Your task to perform on an android device: Go to Google maps Image 0: 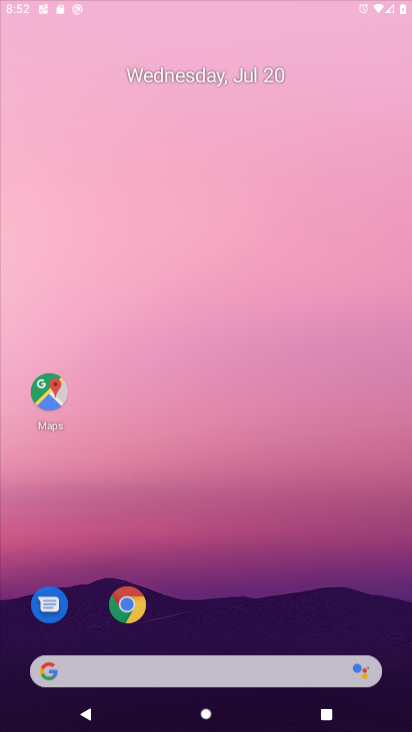
Step 0: drag from (199, 314) to (167, 363)
Your task to perform on an android device: Go to Google maps Image 1: 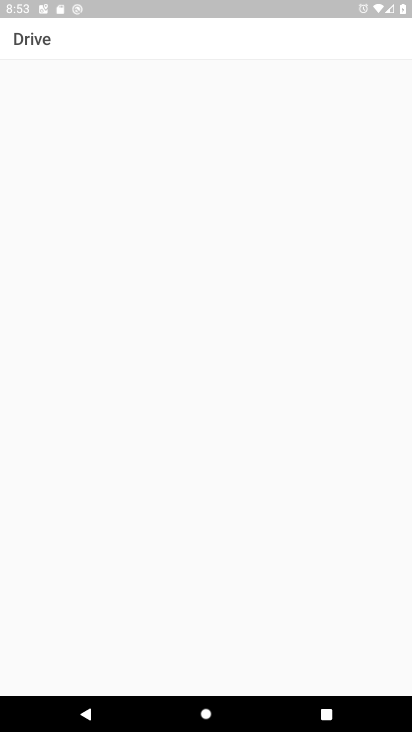
Step 1: drag from (135, 650) to (153, 474)
Your task to perform on an android device: Go to Google maps Image 2: 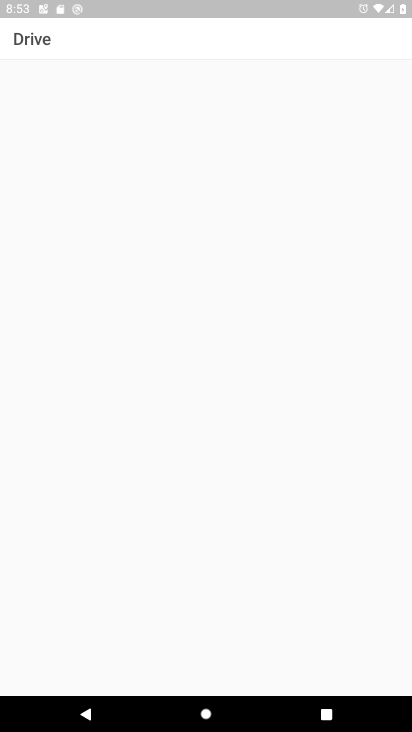
Step 2: press home button
Your task to perform on an android device: Go to Google maps Image 3: 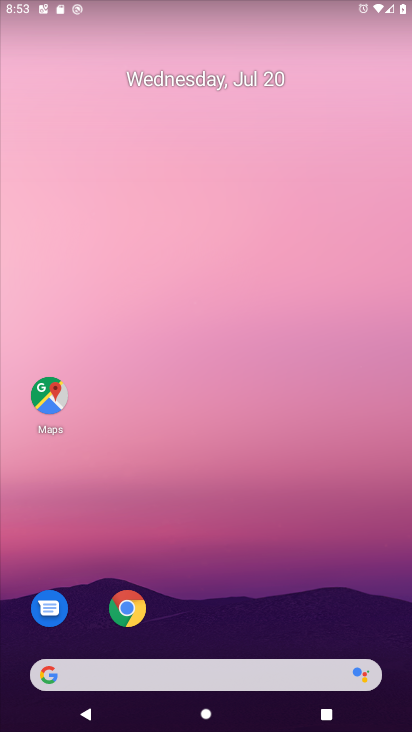
Step 3: click (53, 405)
Your task to perform on an android device: Go to Google maps Image 4: 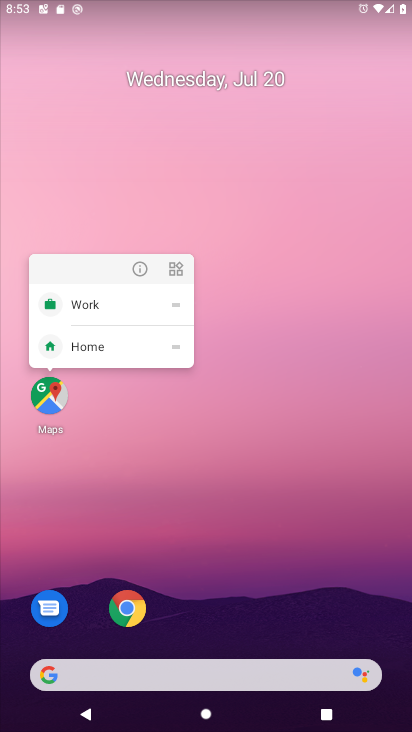
Step 4: click (47, 386)
Your task to perform on an android device: Go to Google maps Image 5: 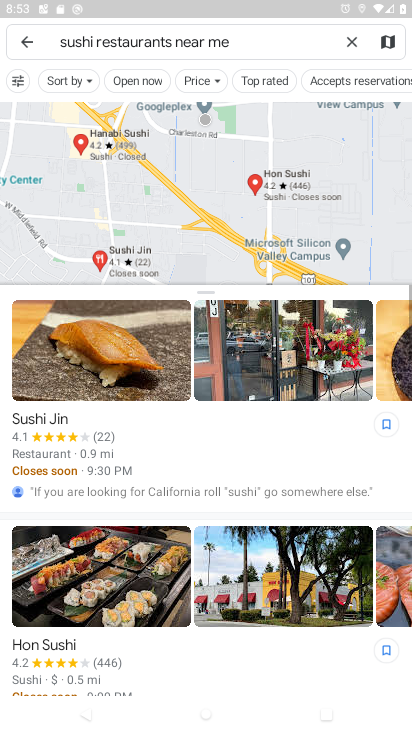
Step 5: click (347, 37)
Your task to perform on an android device: Go to Google maps Image 6: 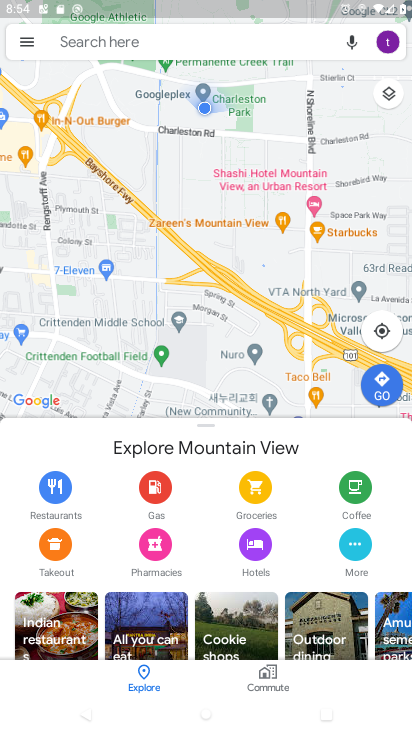
Step 6: task complete